Your task to perform on an android device: turn on bluetooth scan Image 0: 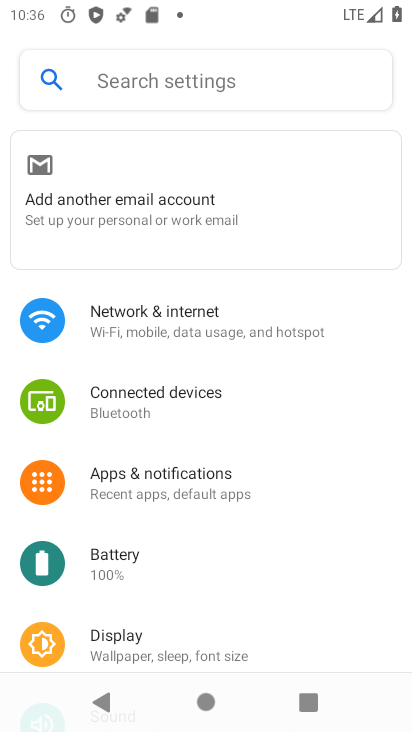
Step 0: press home button
Your task to perform on an android device: turn on bluetooth scan Image 1: 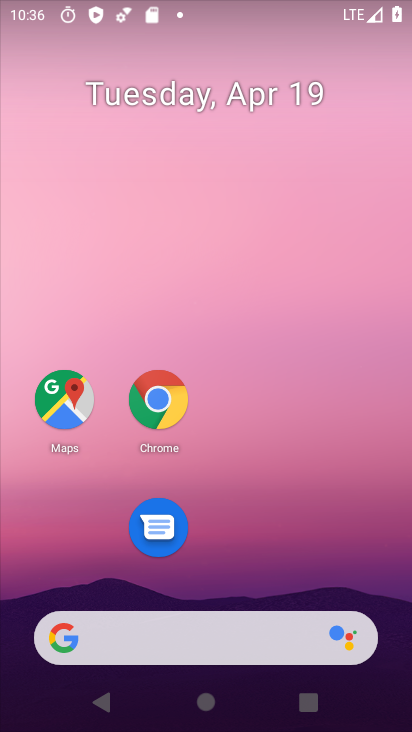
Step 1: drag from (314, 492) to (378, 153)
Your task to perform on an android device: turn on bluetooth scan Image 2: 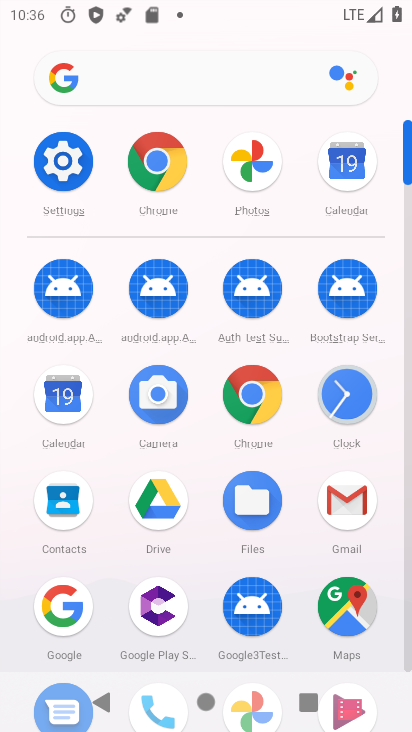
Step 2: click (62, 176)
Your task to perform on an android device: turn on bluetooth scan Image 3: 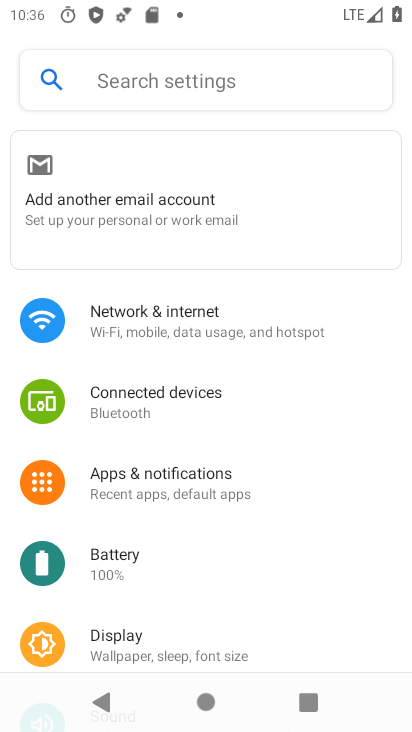
Step 3: click (233, 79)
Your task to perform on an android device: turn on bluetooth scan Image 4: 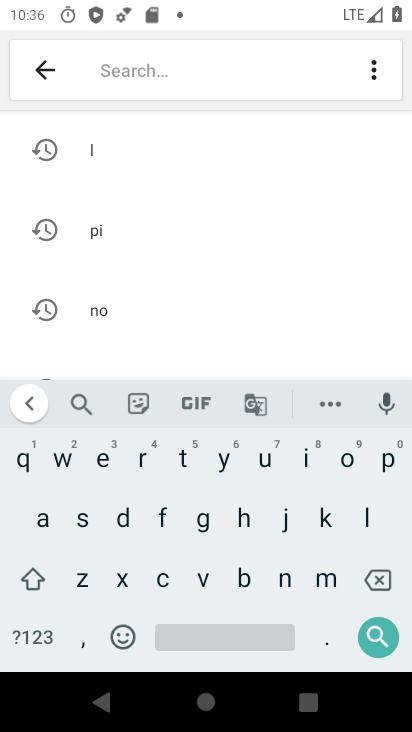
Step 4: click (135, 161)
Your task to perform on an android device: turn on bluetooth scan Image 5: 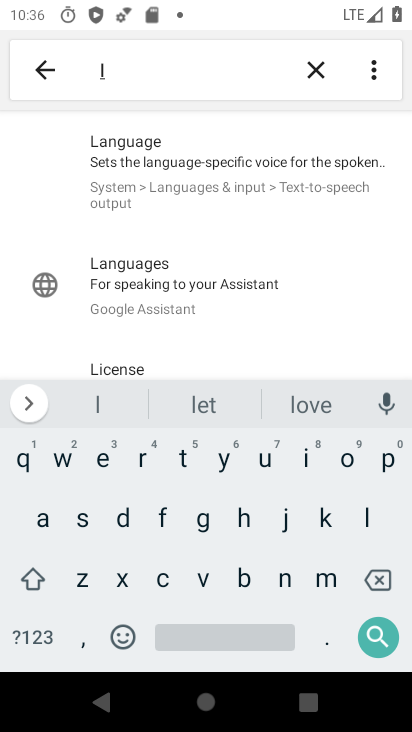
Step 5: drag from (160, 298) to (201, 135)
Your task to perform on an android device: turn on bluetooth scan Image 6: 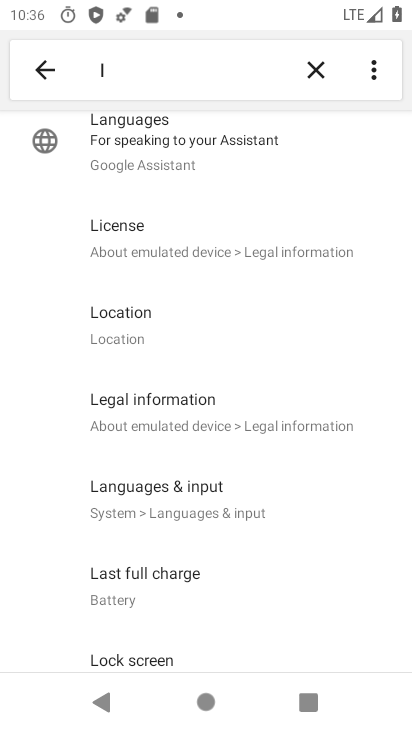
Step 6: click (145, 321)
Your task to perform on an android device: turn on bluetooth scan Image 7: 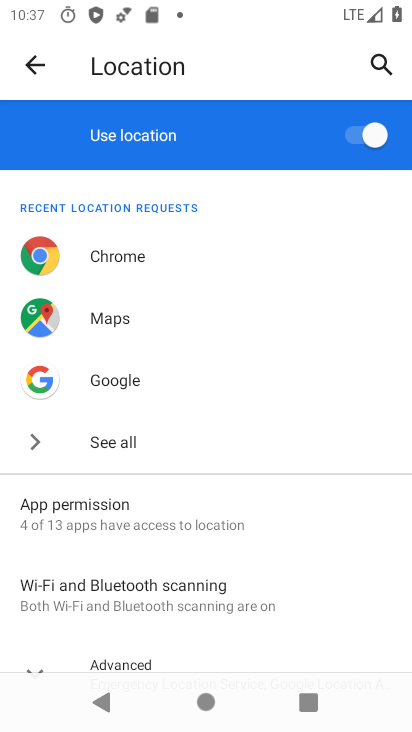
Step 7: drag from (153, 504) to (219, 401)
Your task to perform on an android device: turn on bluetooth scan Image 8: 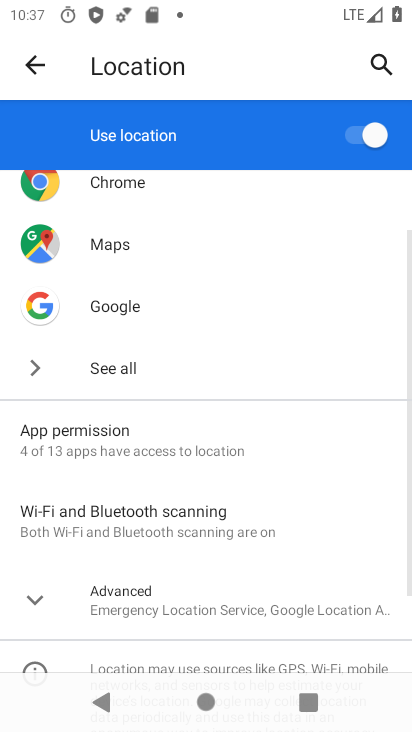
Step 8: click (153, 518)
Your task to perform on an android device: turn on bluetooth scan Image 9: 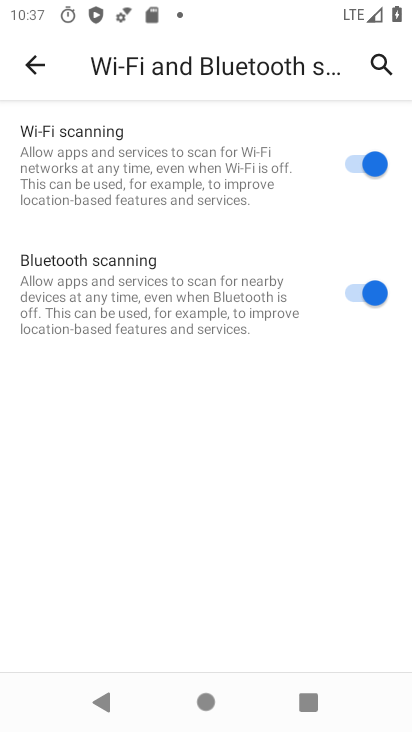
Step 9: click (275, 286)
Your task to perform on an android device: turn on bluetooth scan Image 10: 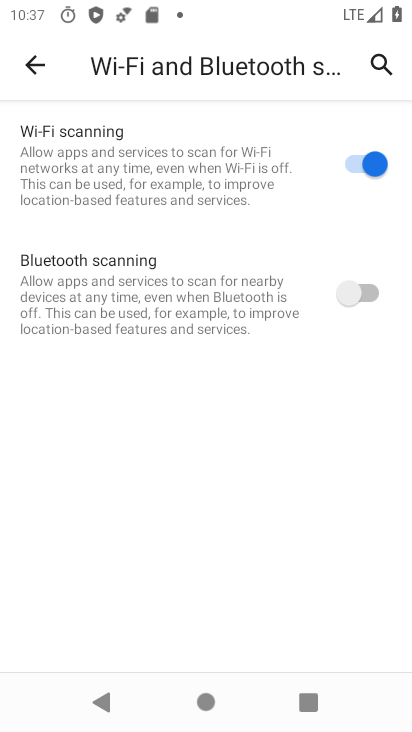
Step 10: click (270, 294)
Your task to perform on an android device: turn on bluetooth scan Image 11: 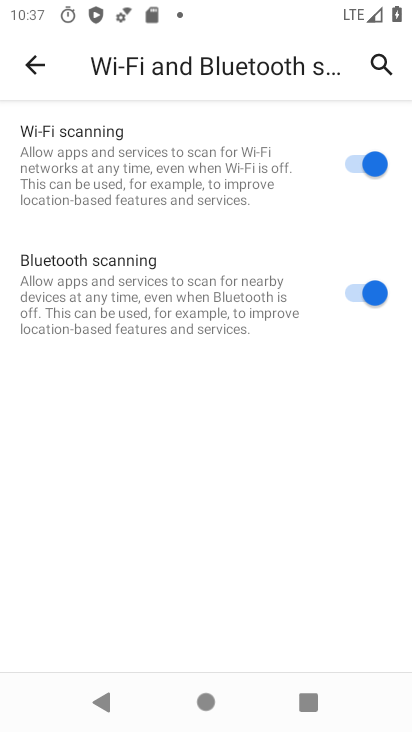
Step 11: task complete